Your task to perform on an android device: open a new tab in the chrome app Image 0: 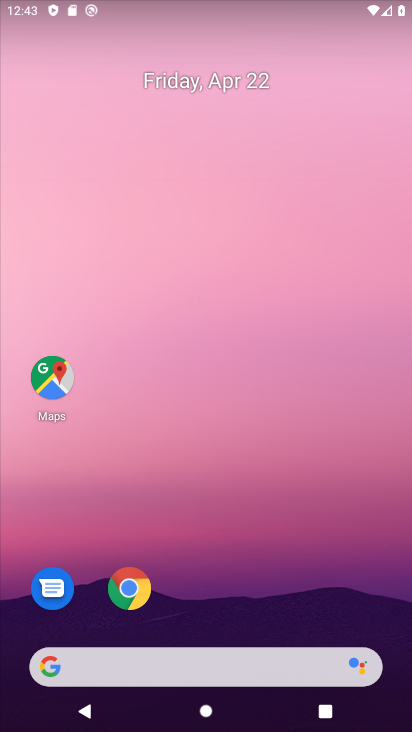
Step 0: drag from (272, 654) to (205, 218)
Your task to perform on an android device: open a new tab in the chrome app Image 1: 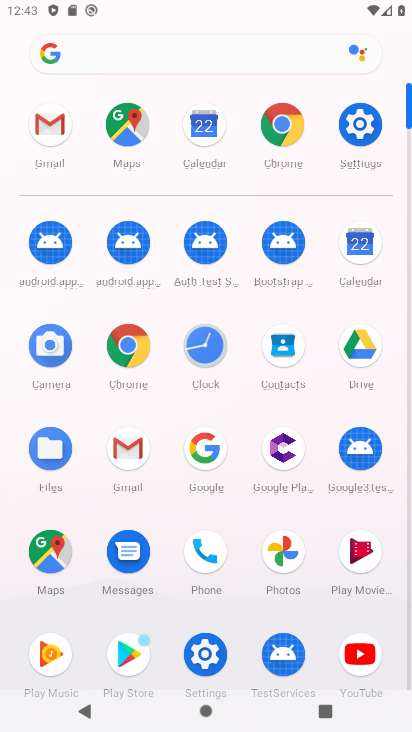
Step 1: click (279, 132)
Your task to perform on an android device: open a new tab in the chrome app Image 2: 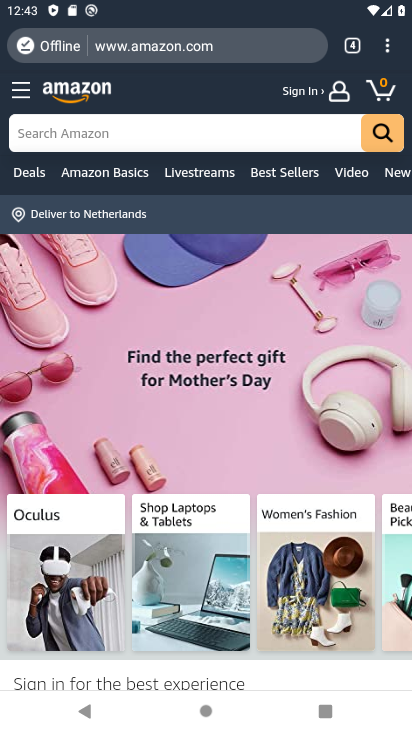
Step 2: click (389, 48)
Your task to perform on an android device: open a new tab in the chrome app Image 3: 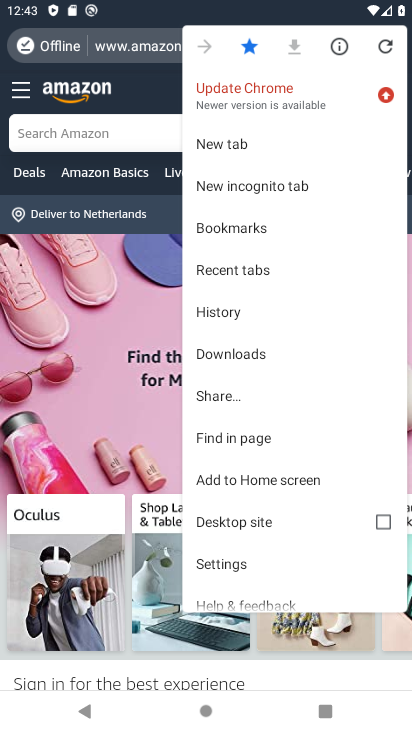
Step 3: click (257, 146)
Your task to perform on an android device: open a new tab in the chrome app Image 4: 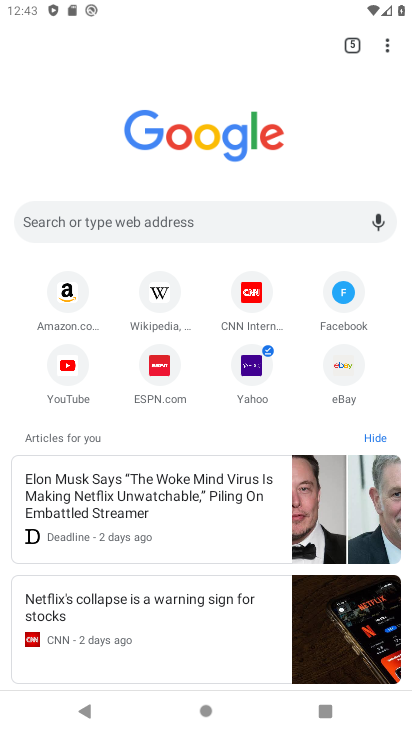
Step 4: task complete